Your task to perform on an android device: turn off location history Image 0: 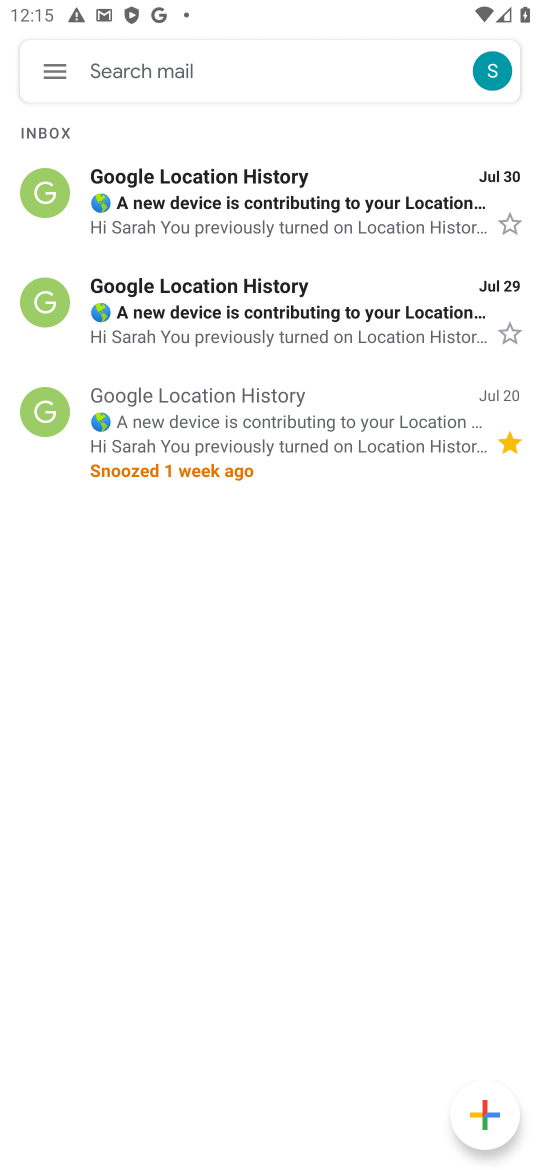
Step 0: press home button
Your task to perform on an android device: turn off location history Image 1: 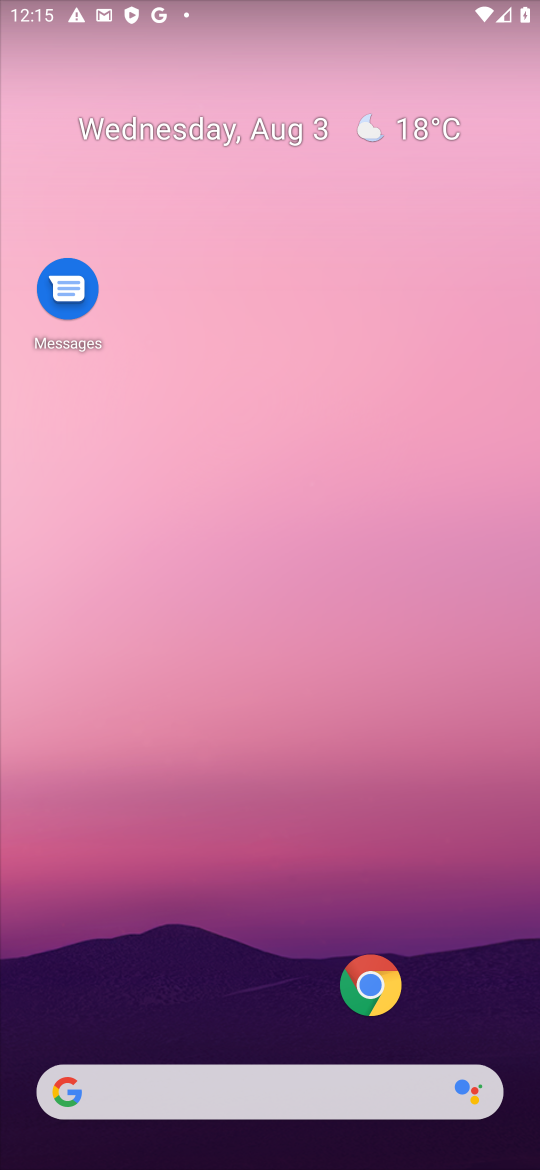
Step 1: drag from (276, 1042) to (246, 167)
Your task to perform on an android device: turn off location history Image 2: 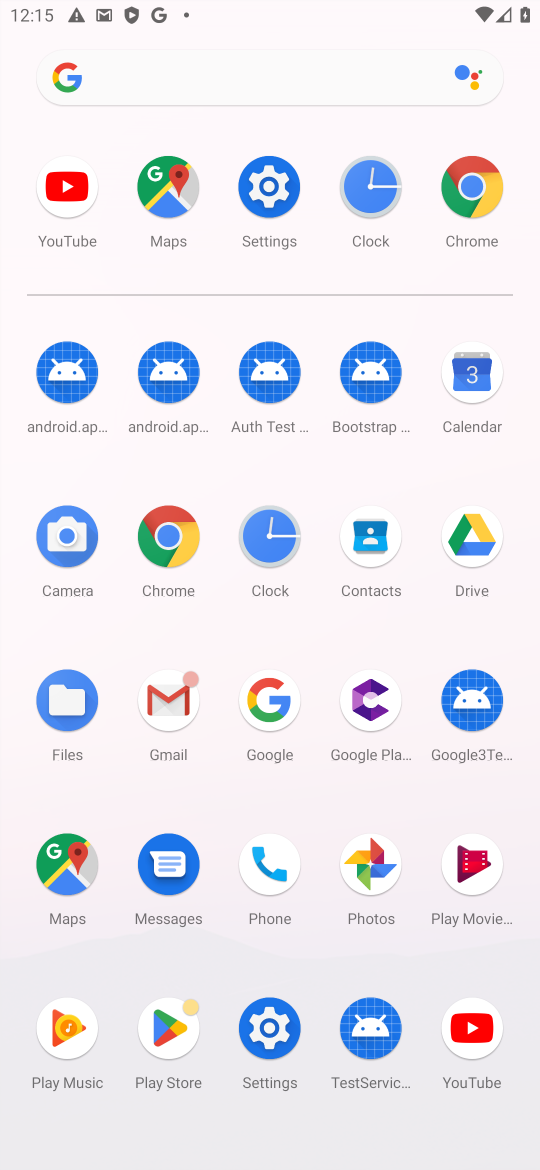
Step 2: click (246, 167)
Your task to perform on an android device: turn off location history Image 3: 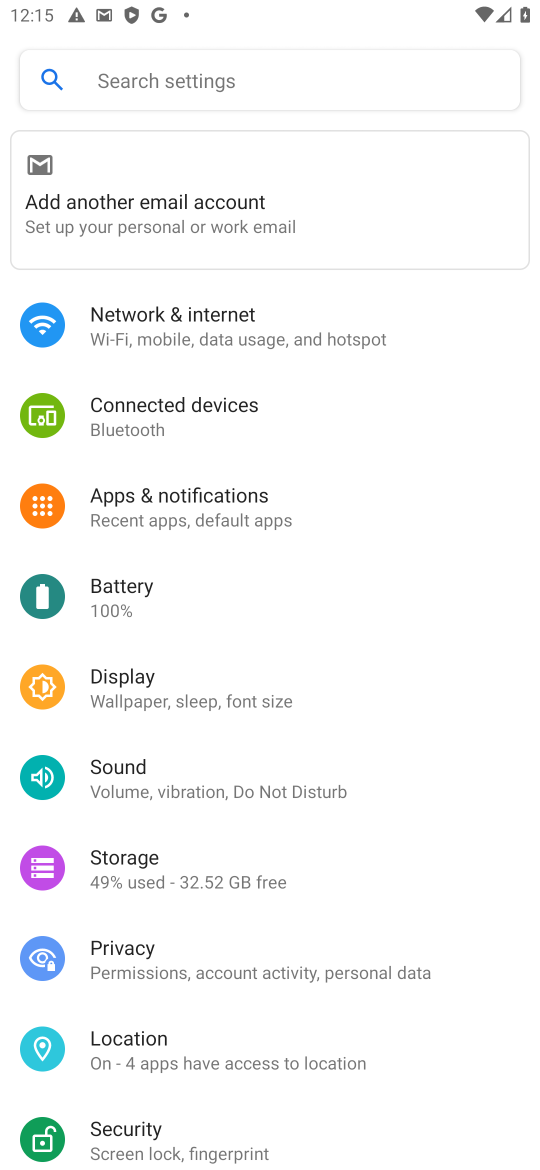
Step 3: click (230, 1036)
Your task to perform on an android device: turn off location history Image 4: 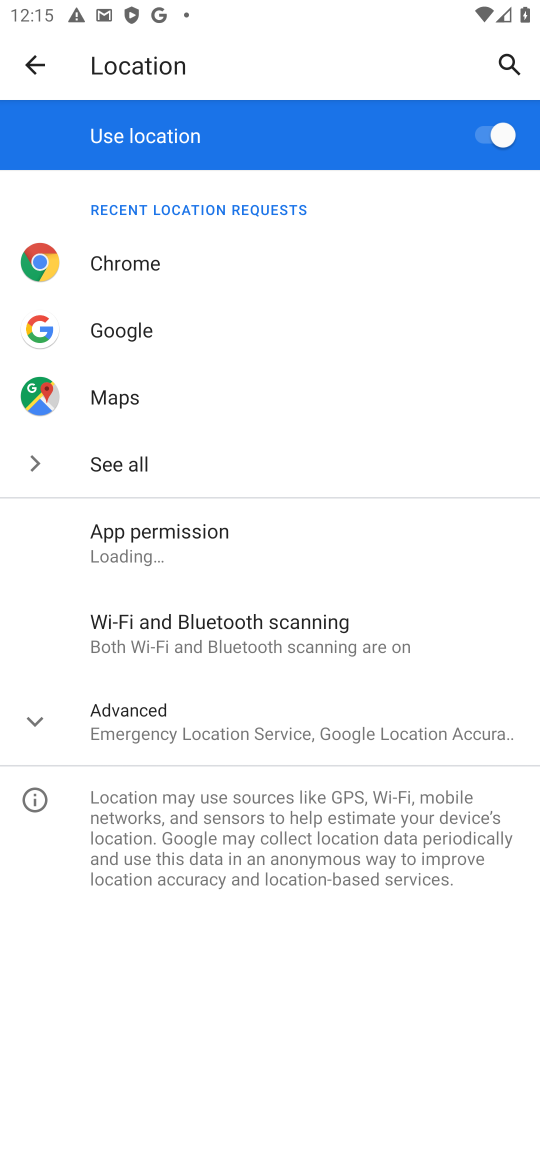
Step 4: click (228, 712)
Your task to perform on an android device: turn off location history Image 5: 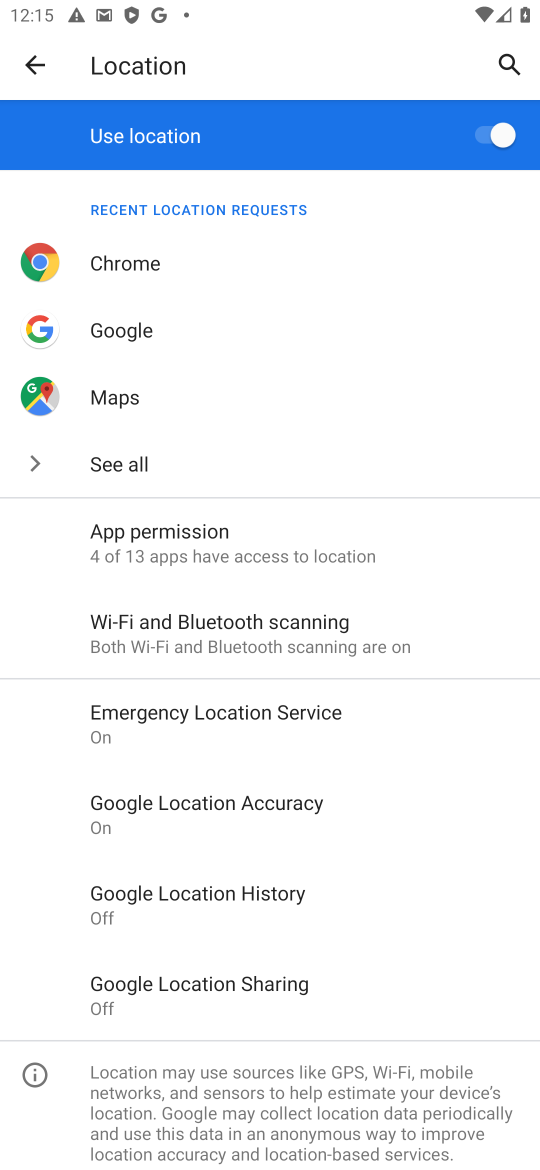
Step 5: click (260, 871)
Your task to perform on an android device: turn off location history Image 6: 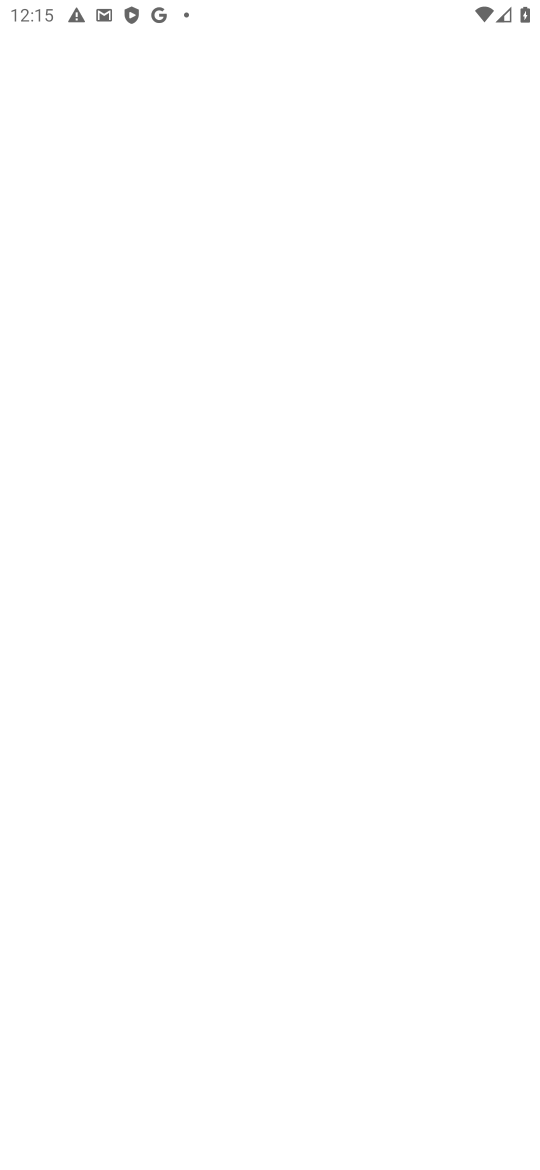
Step 6: task complete